Your task to perform on an android device: Open privacy settings Image 0: 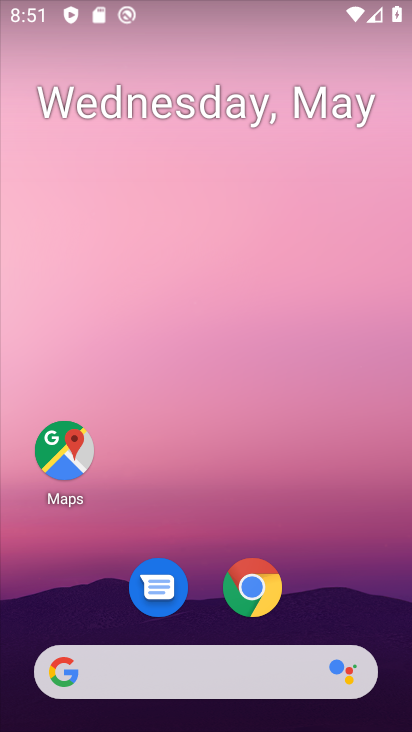
Step 0: click (250, 610)
Your task to perform on an android device: Open privacy settings Image 1: 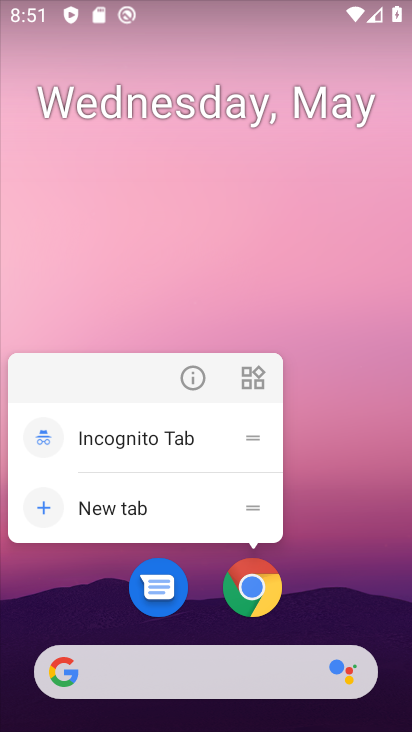
Step 1: click (255, 599)
Your task to perform on an android device: Open privacy settings Image 2: 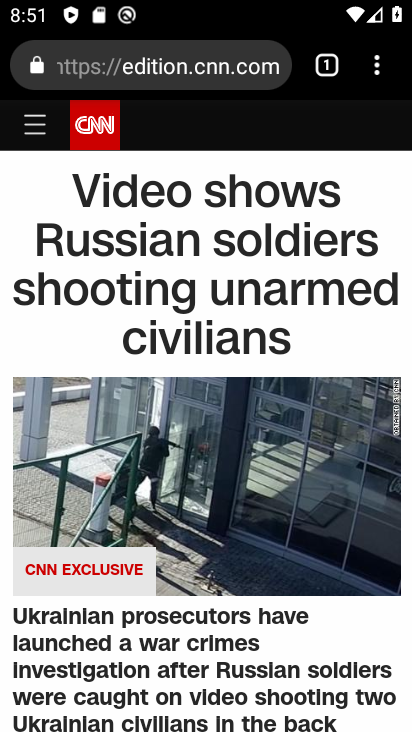
Step 2: drag from (379, 73) to (260, 624)
Your task to perform on an android device: Open privacy settings Image 3: 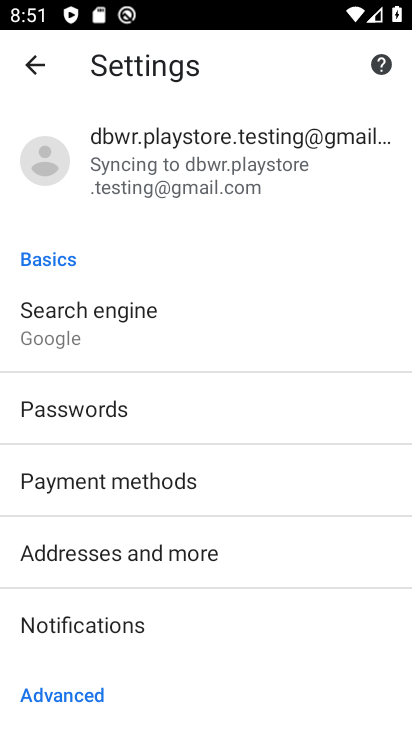
Step 3: drag from (203, 572) to (270, 328)
Your task to perform on an android device: Open privacy settings Image 4: 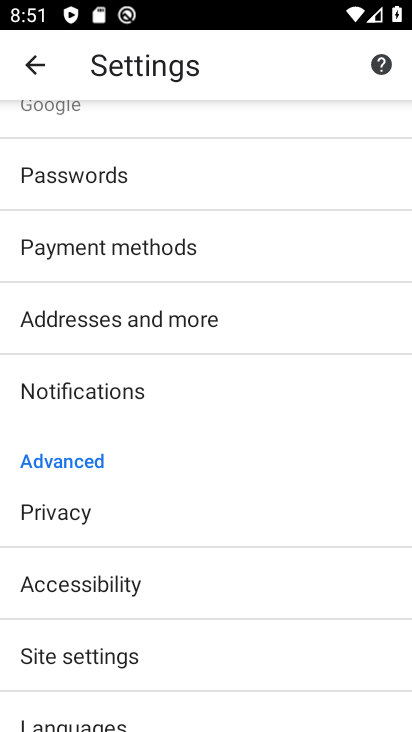
Step 4: click (138, 528)
Your task to perform on an android device: Open privacy settings Image 5: 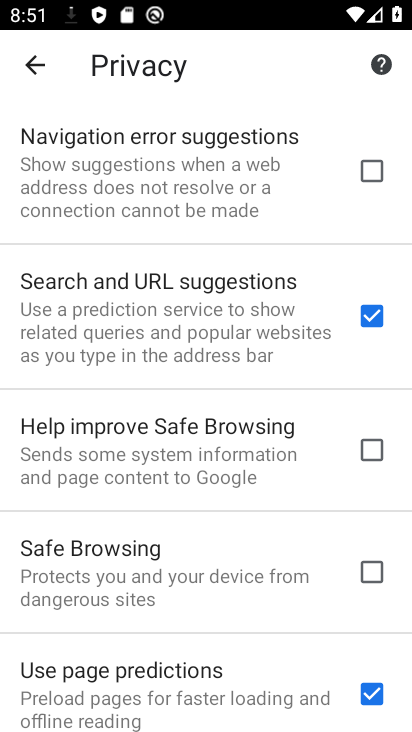
Step 5: task complete